Your task to perform on an android device: visit the assistant section in the google photos Image 0: 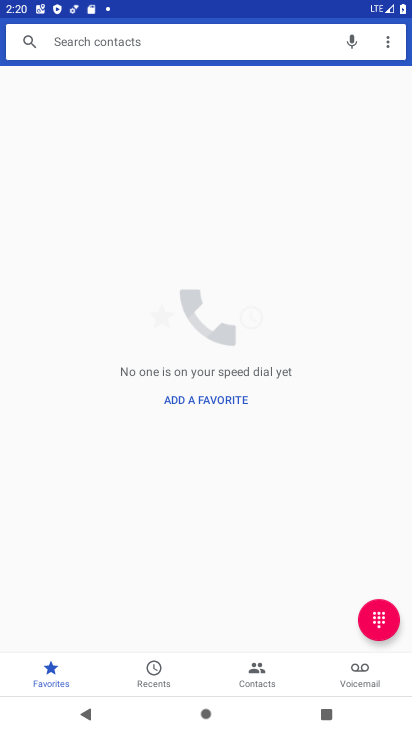
Step 0: press home button
Your task to perform on an android device: visit the assistant section in the google photos Image 1: 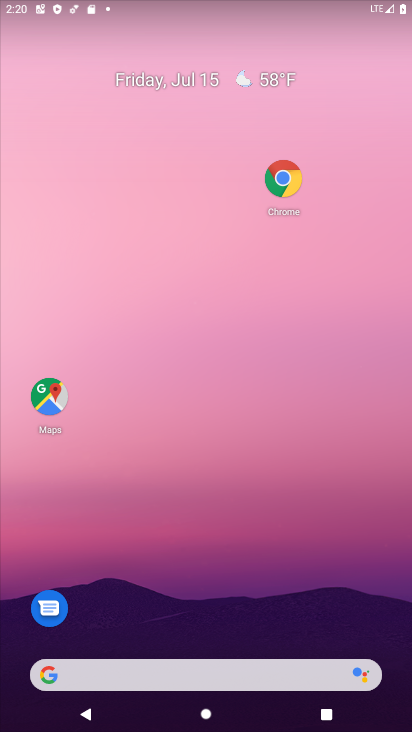
Step 1: drag from (219, 640) to (198, 145)
Your task to perform on an android device: visit the assistant section in the google photos Image 2: 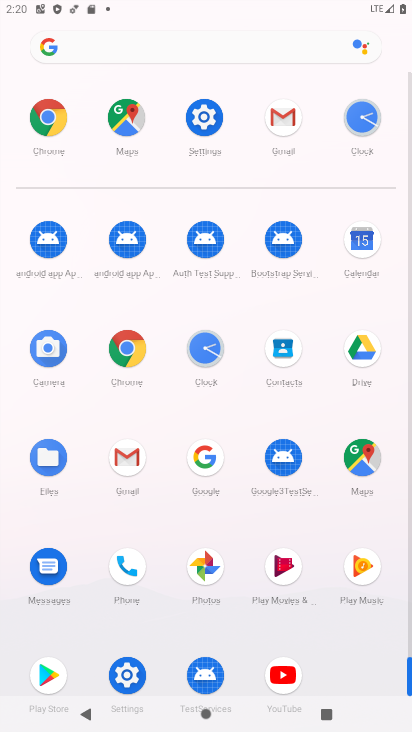
Step 2: click (210, 561)
Your task to perform on an android device: visit the assistant section in the google photos Image 3: 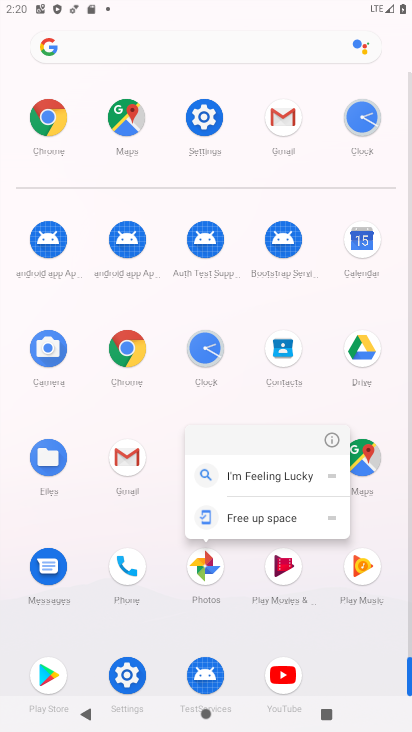
Step 3: click (212, 565)
Your task to perform on an android device: visit the assistant section in the google photos Image 4: 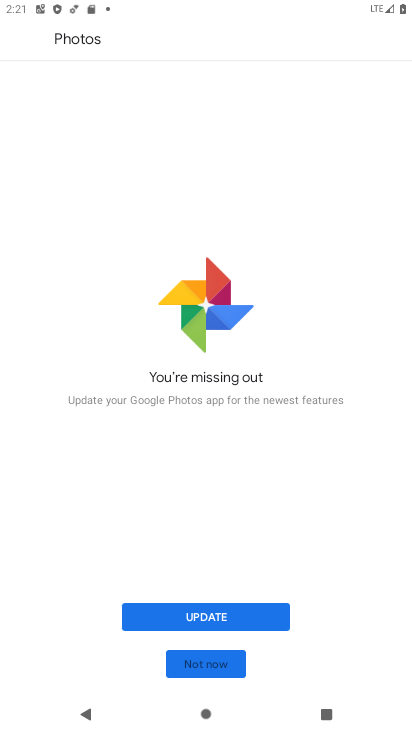
Step 4: click (205, 610)
Your task to perform on an android device: visit the assistant section in the google photos Image 5: 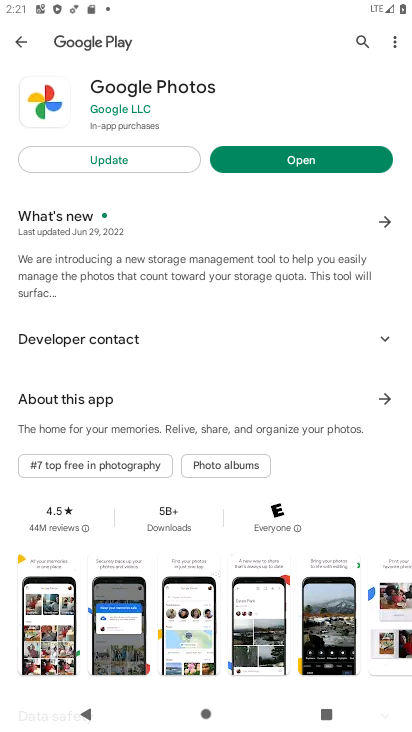
Step 5: click (106, 151)
Your task to perform on an android device: visit the assistant section in the google photos Image 6: 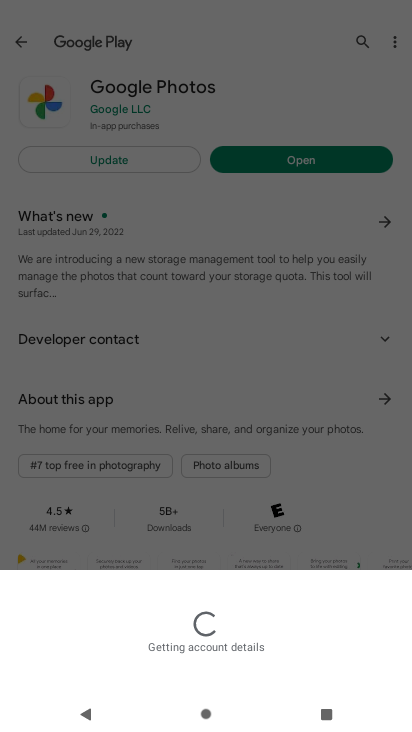
Step 6: click (274, 156)
Your task to perform on an android device: visit the assistant section in the google photos Image 7: 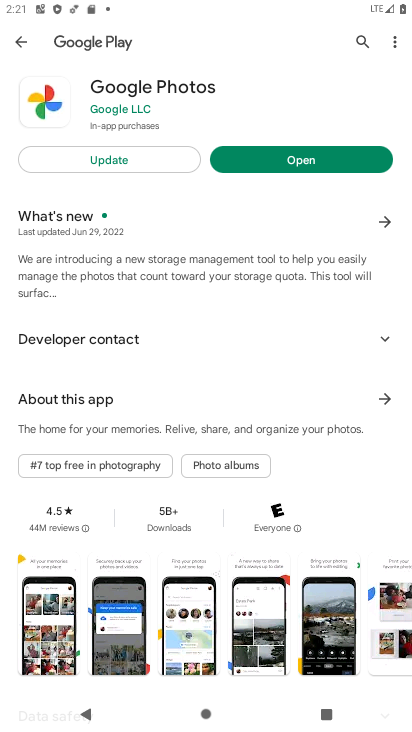
Step 7: click (274, 156)
Your task to perform on an android device: visit the assistant section in the google photos Image 8: 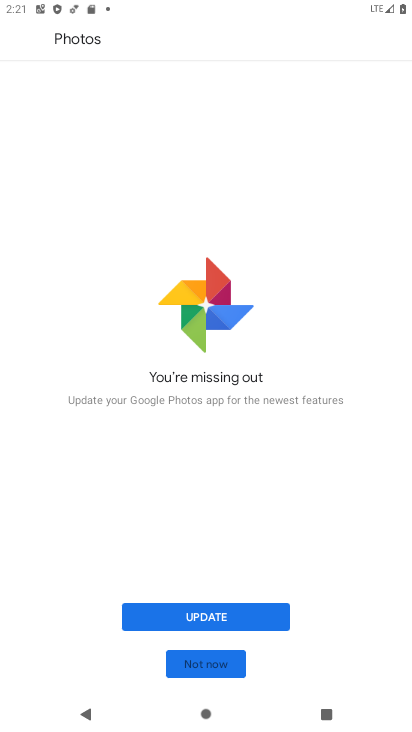
Step 8: click (206, 606)
Your task to perform on an android device: visit the assistant section in the google photos Image 9: 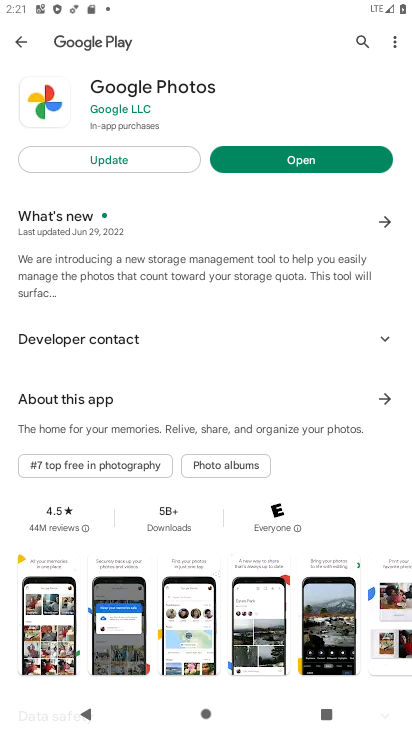
Step 9: click (121, 154)
Your task to perform on an android device: visit the assistant section in the google photos Image 10: 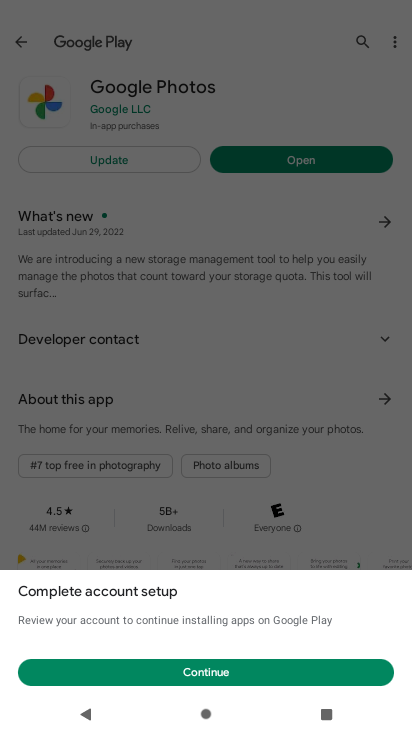
Step 10: click (182, 668)
Your task to perform on an android device: visit the assistant section in the google photos Image 11: 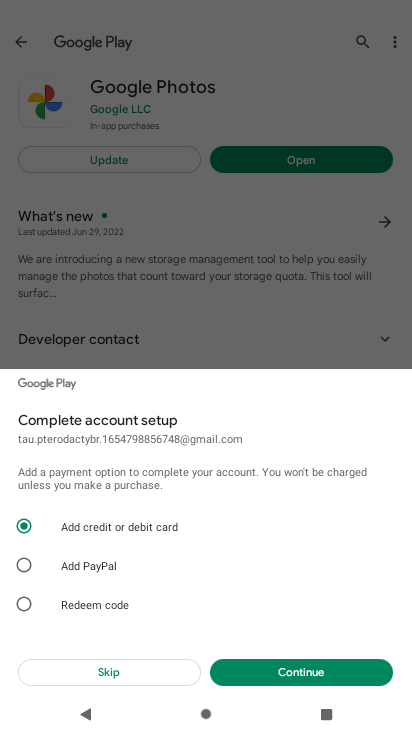
Step 11: click (295, 664)
Your task to perform on an android device: visit the assistant section in the google photos Image 12: 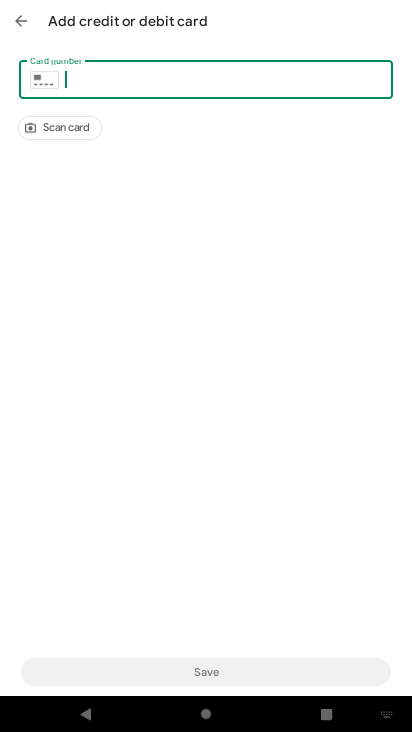
Step 12: click (9, 20)
Your task to perform on an android device: visit the assistant section in the google photos Image 13: 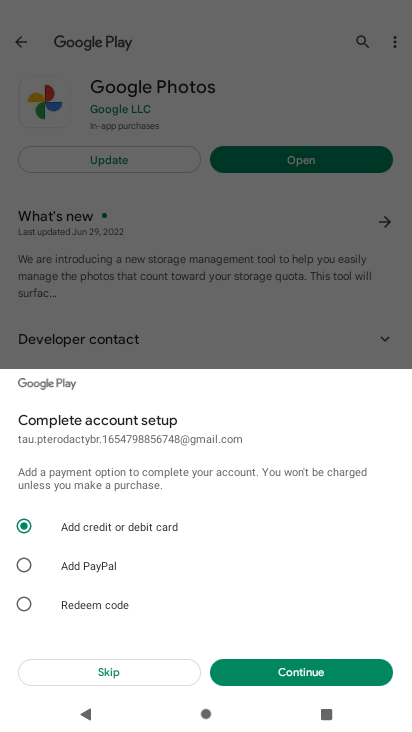
Step 13: task complete